Your task to perform on an android device: Show me popular games on the Play Store Image 0: 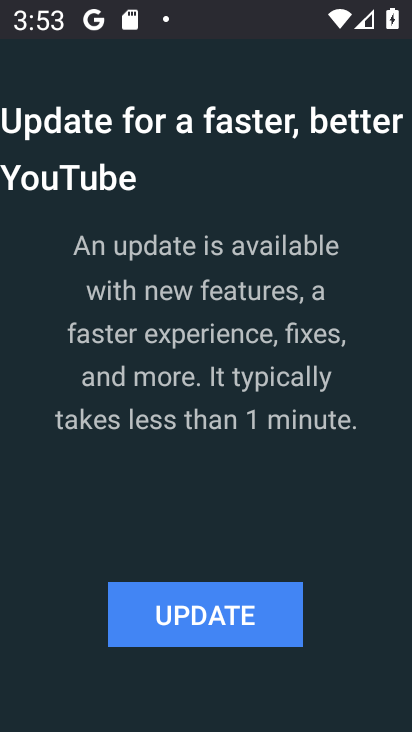
Step 0: press home button
Your task to perform on an android device: Show me popular games on the Play Store Image 1: 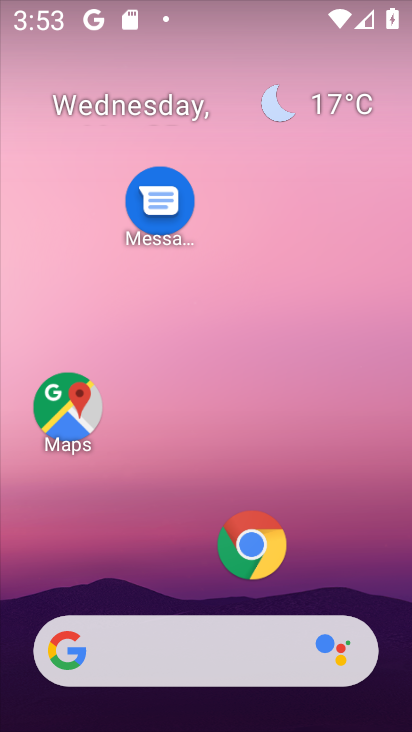
Step 1: click (61, 394)
Your task to perform on an android device: Show me popular games on the Play Store Image 2: 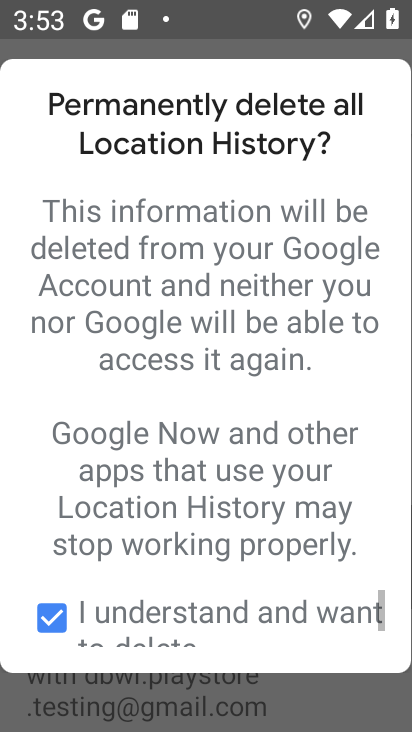
Step 2: press home button
Your task to perform on an android device: Show me popular games on the Play Store Image 3: 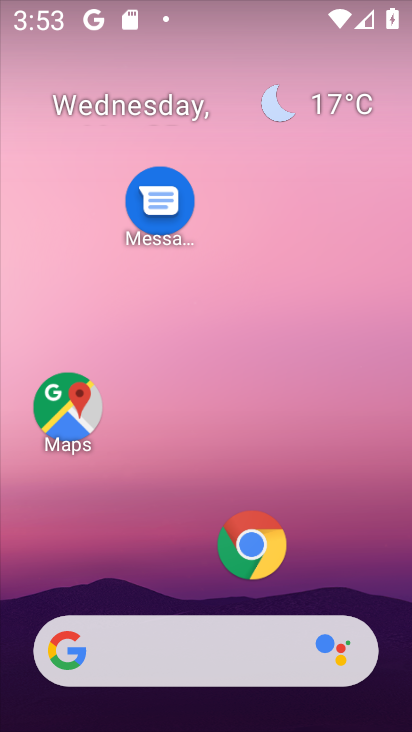
Step 3: drag from (341, 584) to (343, 5)
Your task to perform on an android device: Show me popular games on the Play Store Image 4: 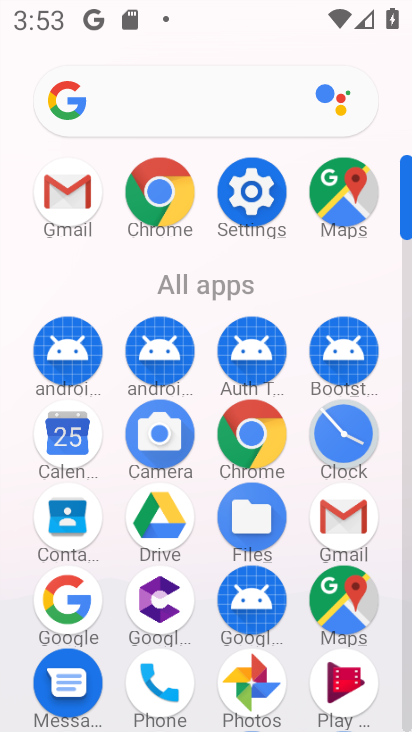
Step 4: drag from (307, 602) to (314, 105)
Your task to perform on an android device: Show me popular games on the Play Store Image 5: 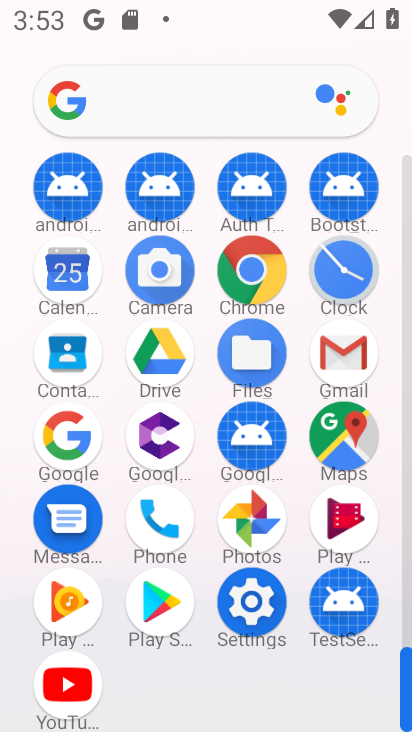
Step 5: click (156, 587)
Your task to perform on an android device: Show me popular games on the Play Store Image 6: 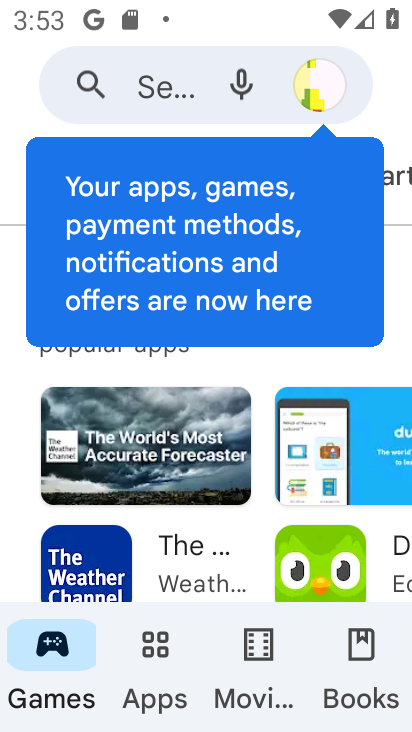
Step 6: click (148, 77)
Your task to perform on an android device: Show me popular games on the Play Store Image 7: 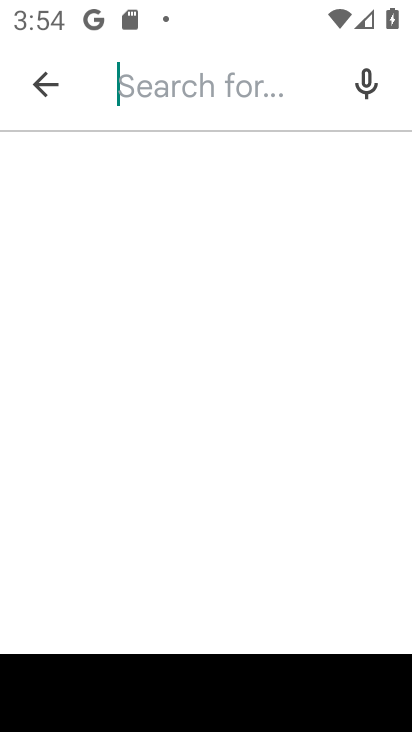
Step 7: type "popular games"
Your task to perform on an android device: Show me popular games on the Play Store Image 8: 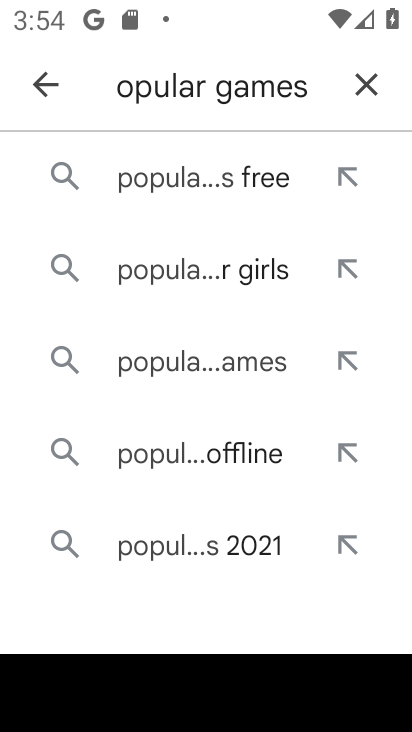
Step 8: click (210, 376)
Your task to perform on an android device: Show me popular games on the Play Store Image 9: 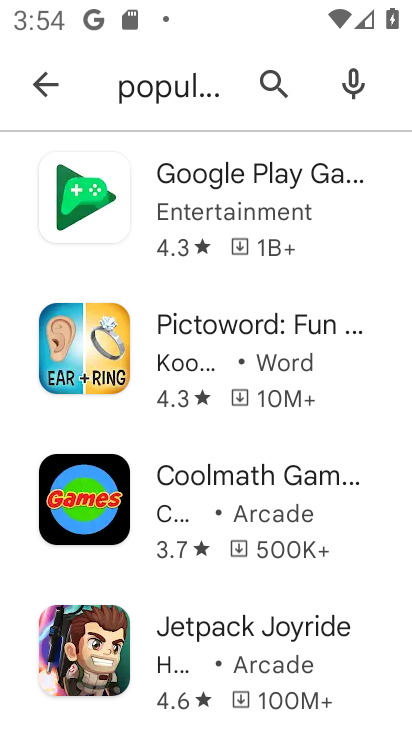
Step 9: task complete